Your task to perform on an android device: manage bookmarks in the chrome app Image 0: 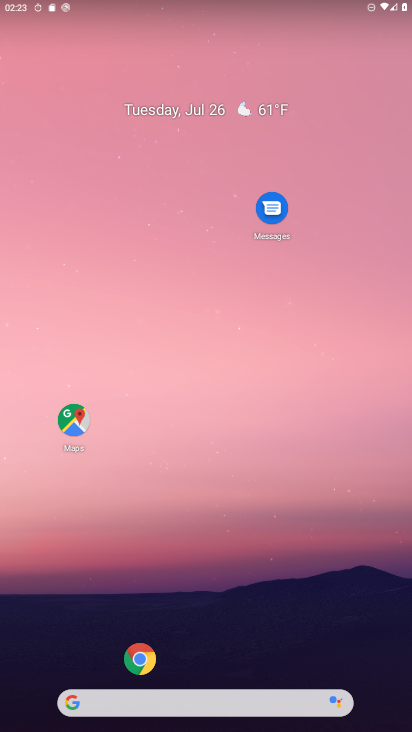
Step 0: click (158, 668)
Your task to perform on an android device: manage bookmarks in the chrome app Image 1: 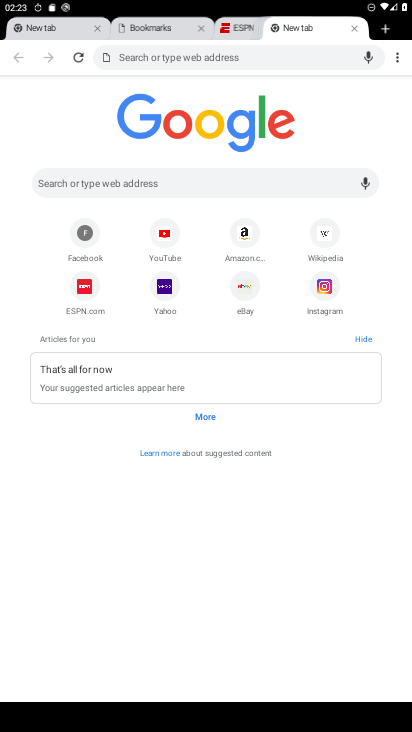
Step 1: click (402, 62)
Your task to perform on an android device: manage bookmarks in the chrome app Image 2: 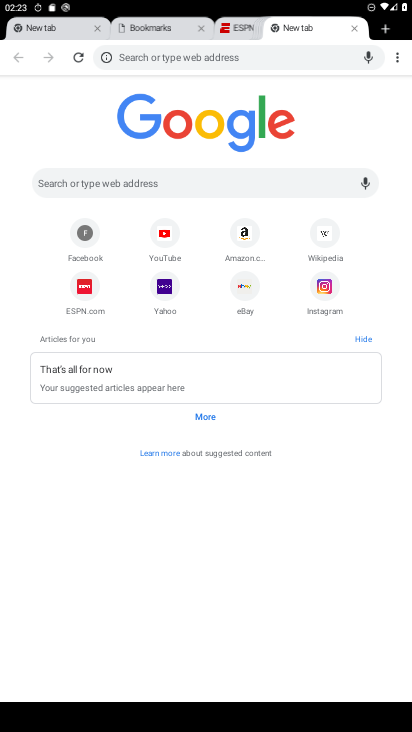
Step 2: click (400, 59)
Your task to perform on an android device: manage bookmarks in the chrome app Image 3: 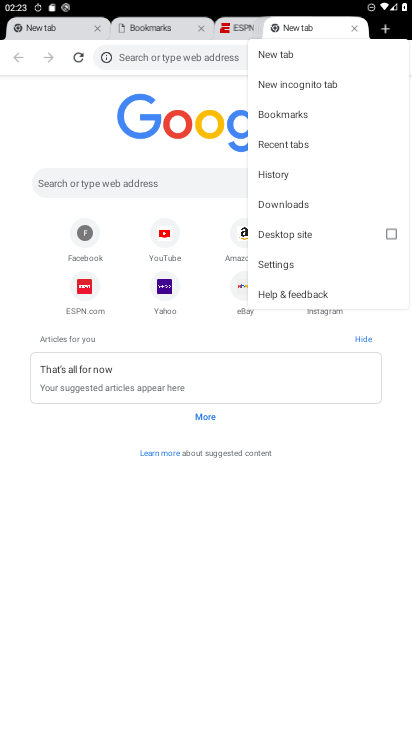
Step 3: click (268, 111)
Your task to perform on an android device: manage bookmarks in the chrome app Image 4: 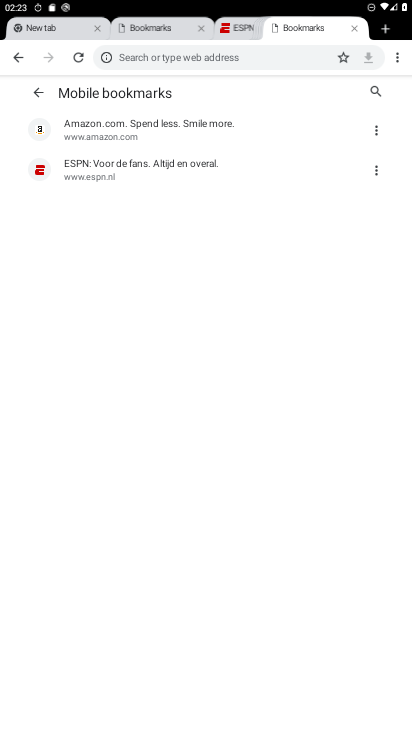
Step 4: task complete